Your task to perform on an android device: open a bookmark in the chrome app Image 0: 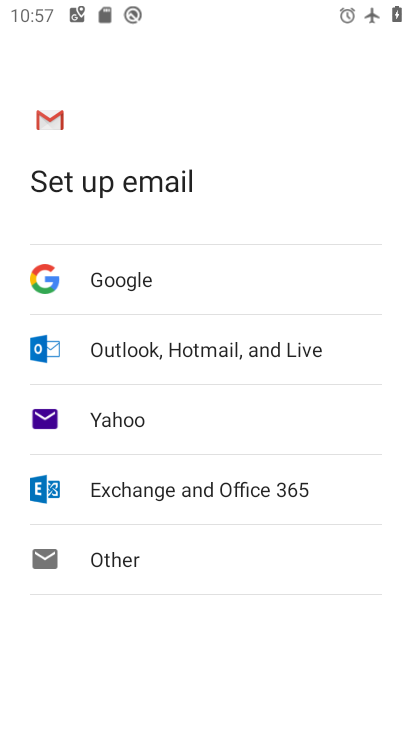
Step 0: press home button
Your task to perform on an android device: open a bookmark in the chrome app Image 1: 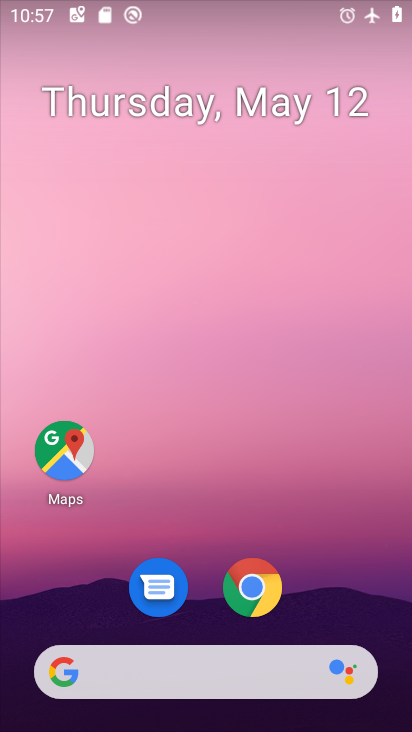
Step 1: drag from (380, 649) to (320, 80)
Your task to perform on an android device: open a bookmark in the chrome app Image 2: 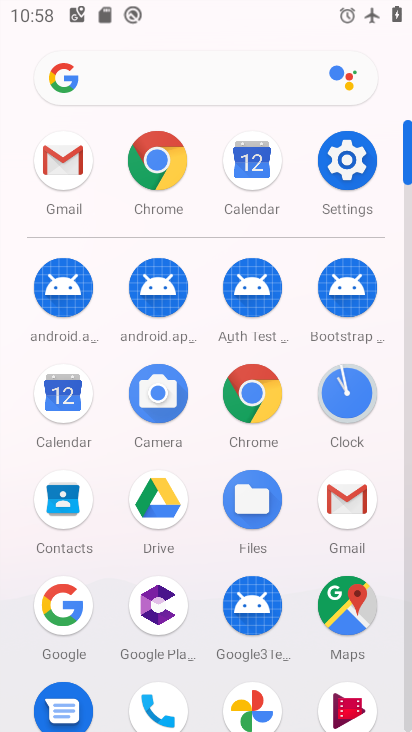
Step 2: click (259, 387)
Your task to perform on an android device: open a bookmark in the chrome app Image 3: 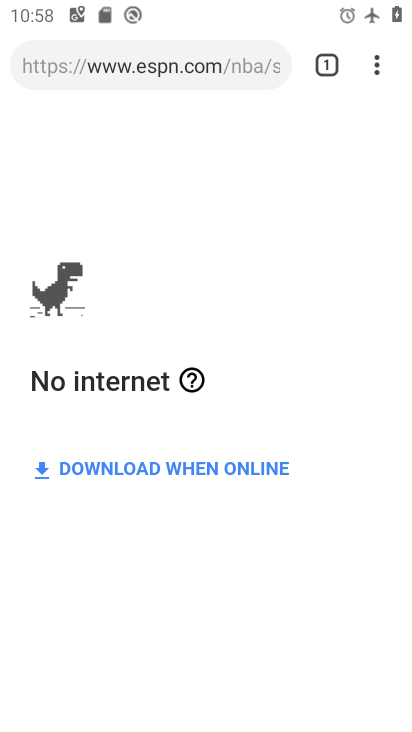
Step 3: press back button
Your task to perform on an android device: open a bookmark in the chrome app Image 4: 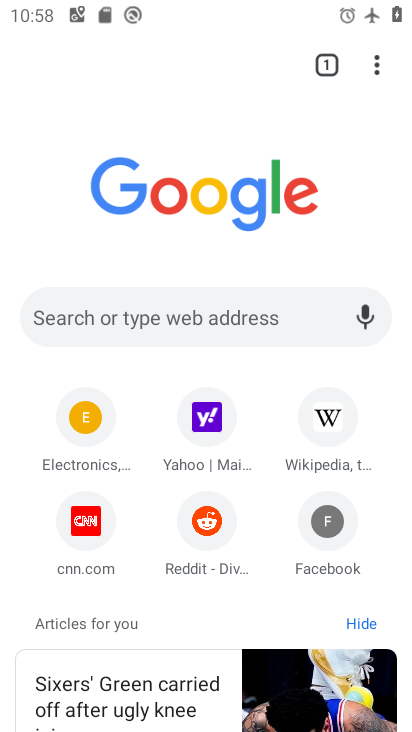
Step 4: click (374, 65)
Your task to perform on an android device: open a bookmark in the chrome app Image 5: 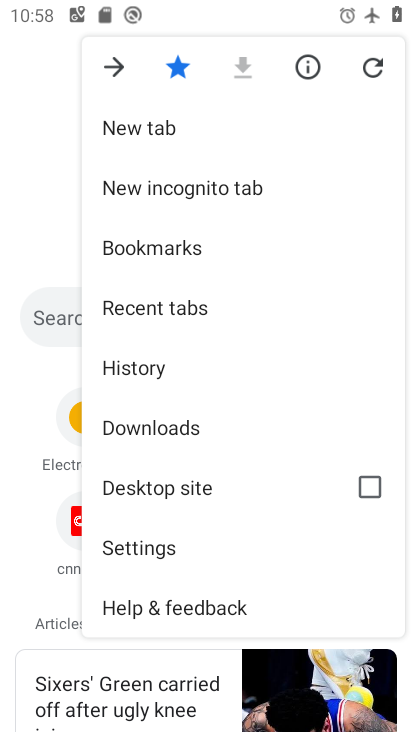
Step 5: click (214, 259)
Your task to perform on an android device: open a bookmark in the chrome app Image 6: 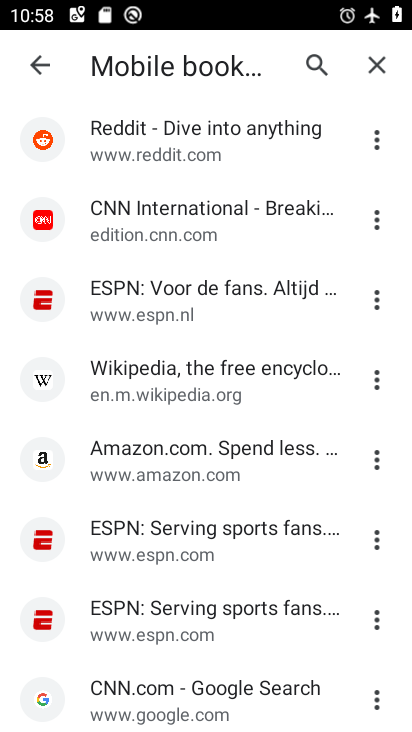
Step 6: task complete